Your task to perform on an android device: turn notification dots off Image 0: 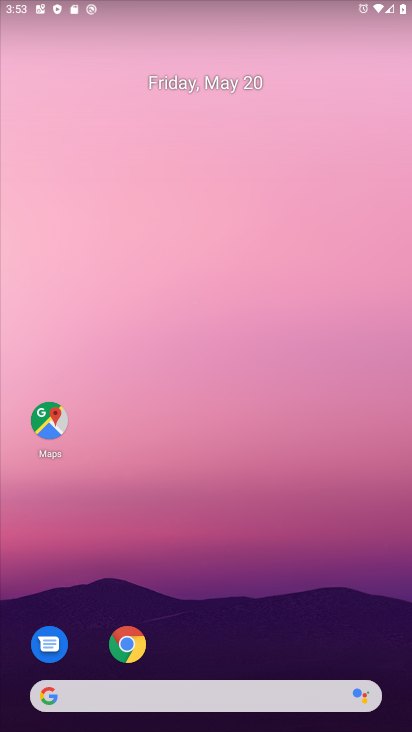
Step 0: drag from (321, 644) to (255, 73)
Your task to perform on an android device: turn notification dots off Image 1: 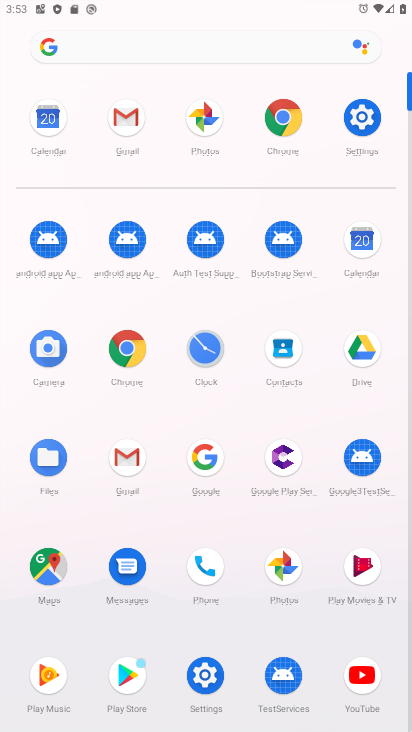
Step 1: click (359, 122)
Your task to perform on an android device: turn notification dots off Image 2: 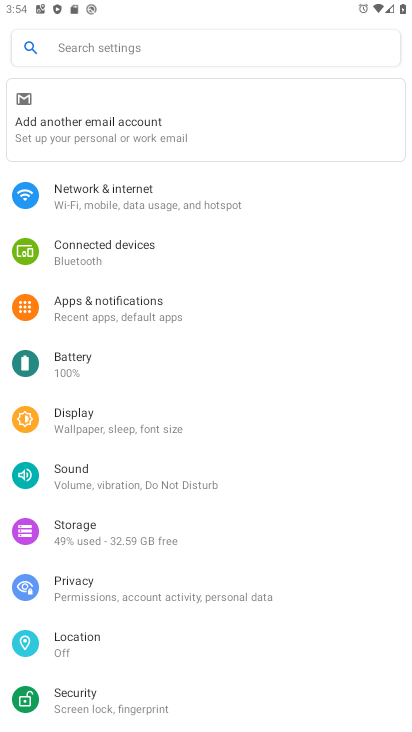
Step 2: click (227, 333)
Your task to perform on an android device: turn notification dots off Image 3: 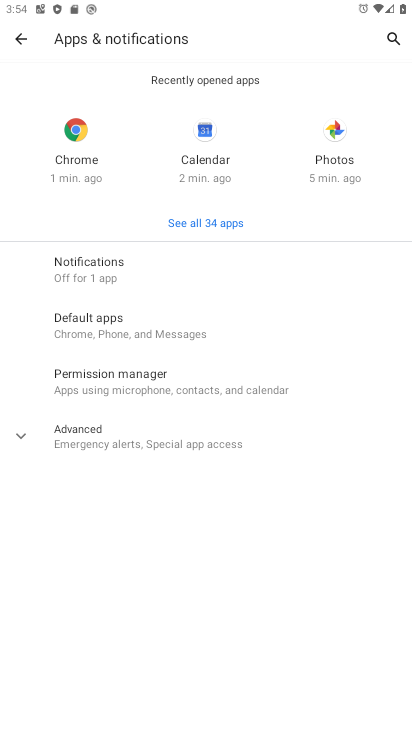
Step 3: task complete